Your task to perform on an android device: Search for sushi restaurants on Maps Image 0: 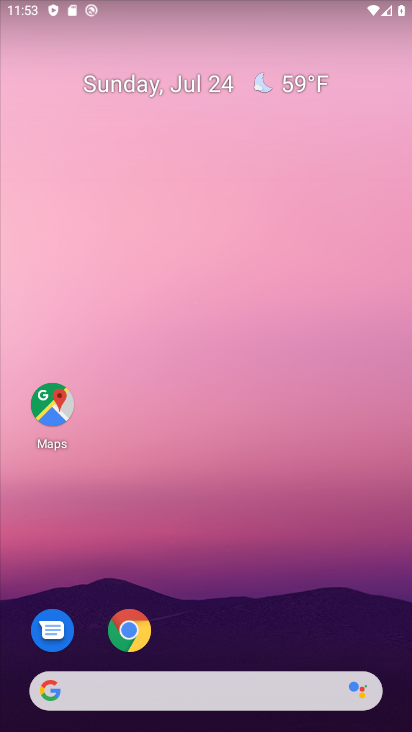
Step 0: click (60, 401)
Your task to perform on an android device: Search for sushi restaurants on Maps Image 1: 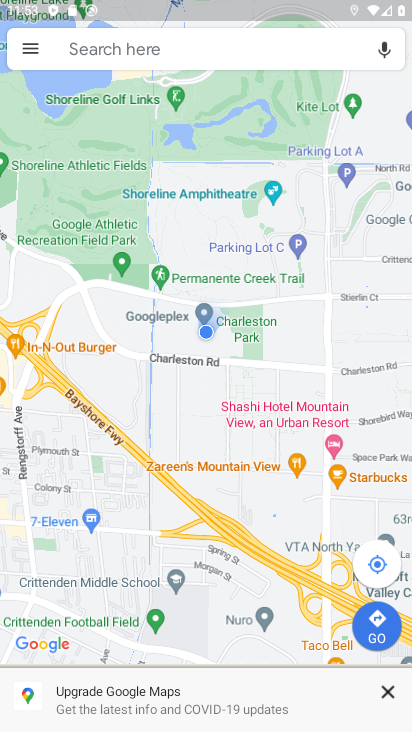
Step 1: click (185, 52)
Your task to perform on an android device: Search for sushi restaurants on Maps Image 2: 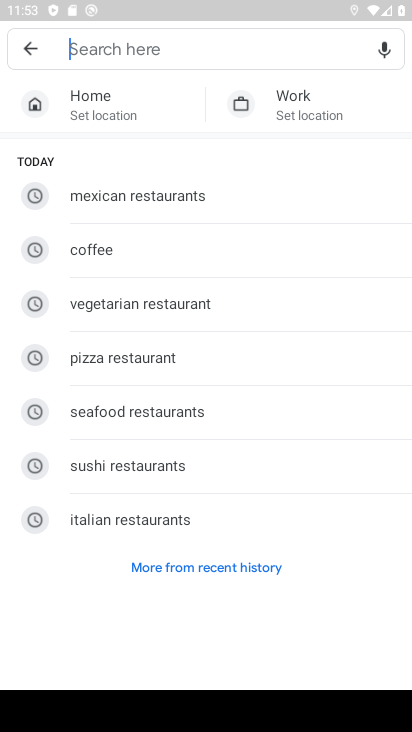
Step 2: click (175, 461)
Your task to perform on an android device: Search for sushi restaurants on Maps Image 3: 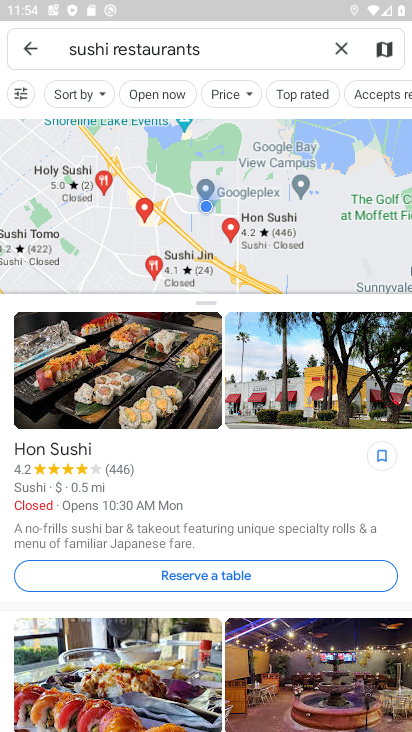
Step 3: task complete